Your task to perform on an android device: add a contact in the contacts app Image 0: 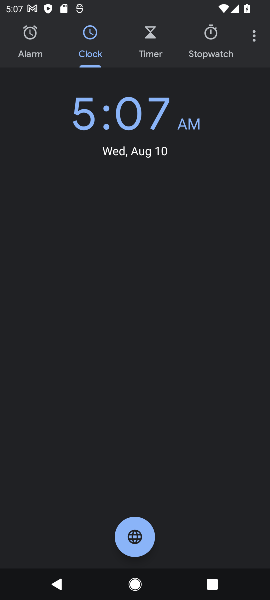
Step 0: press home button
Your task to perform on an android device: add a contact in the contacts app Image 1: 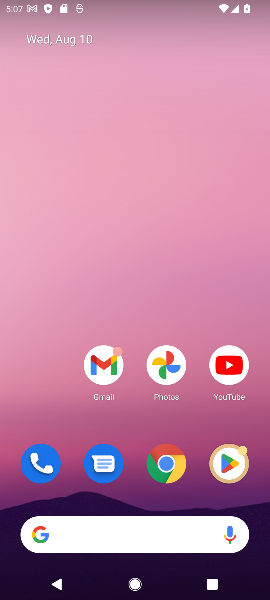
Step 1: drag from (140, 500) to (163, 95)
Your task to perform on an android device: add a contact in the contacts app Image 2: 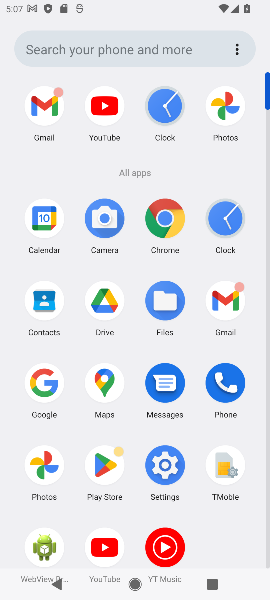
Step 2: click (42, 301)
Your task to perform on an android device: add a contact in the contacts app Image 3: 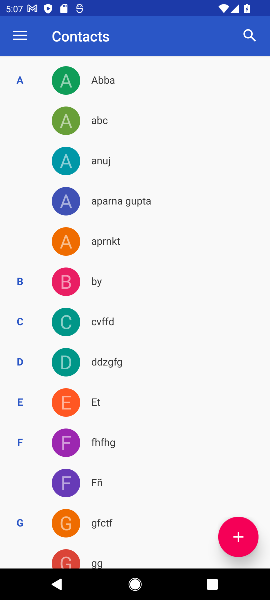
Step 3: click (234, 536)
Your task to perform on an android device: add a contact in the contacts app Image 4: 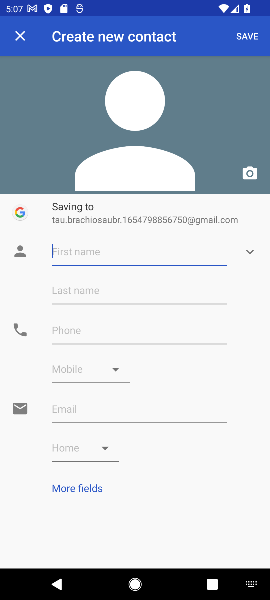
Step 4: type "hhh"
Your task to perform on an android device: add a contact in the contacts app Image 5: 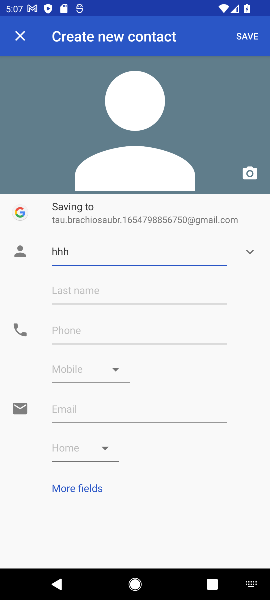
Step 5: click (104, 333)
Your task to perform on an android device: add a contact in the contacts app Image 6: 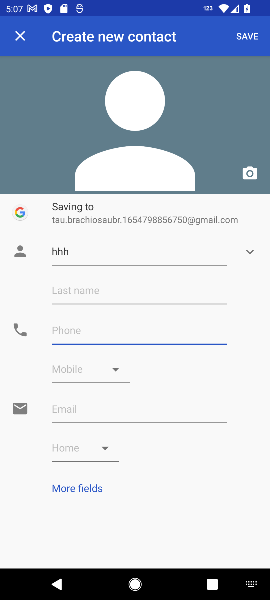
Step 6: type "888"
Your task to perform on an android device: add a contact in the contacts app Image 7: 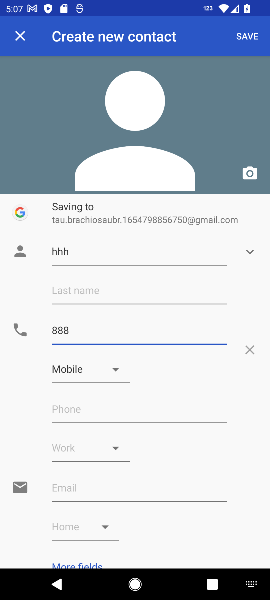
Step 7: click (244, 34)
Your task to perform on an android device: add a contact in the contacts app Image 8: 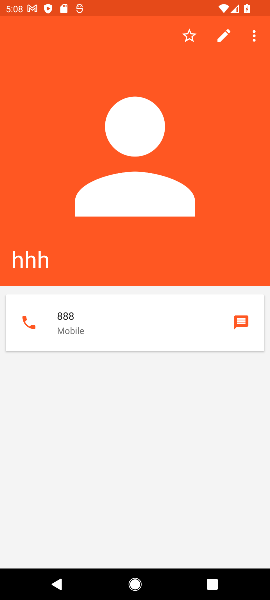
Step 8: task complete